Your task to perform on an android device: turn notification dots off Image 0: 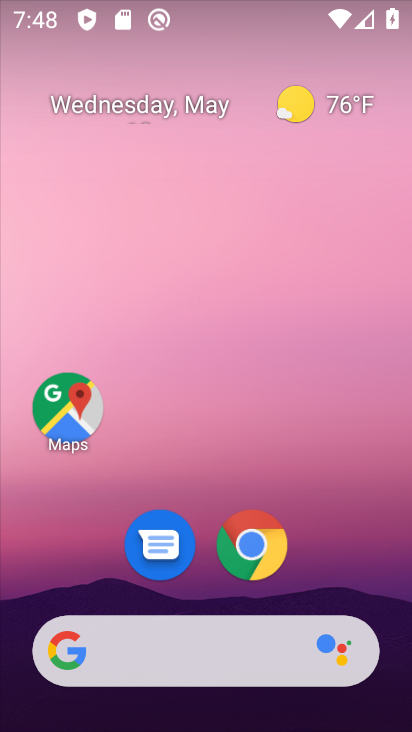
Step 0: drag from (340, 723) to (178, 199)
Your task to perform on an android device: turn notification dots off Image 1: 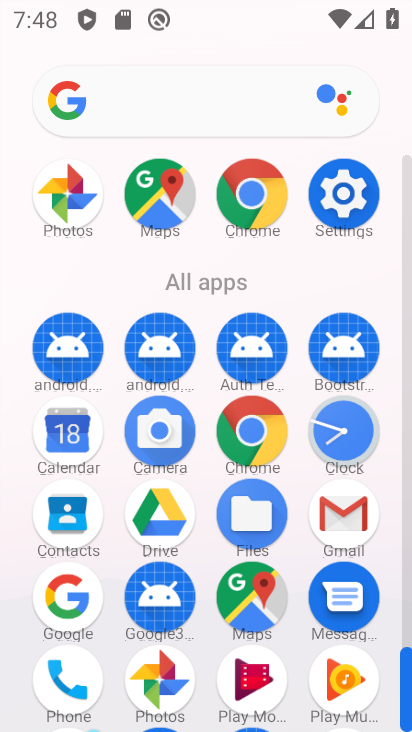
Step 1: click (342, 200)
Your task to perform on an android device: turn notification dots off Image 2: 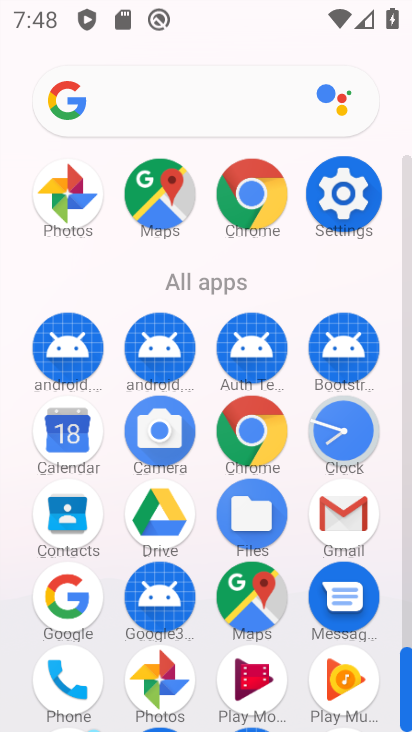
Step 2: click (342, 200)
Your task to perform on an android device: turn notification dots off Image 3: 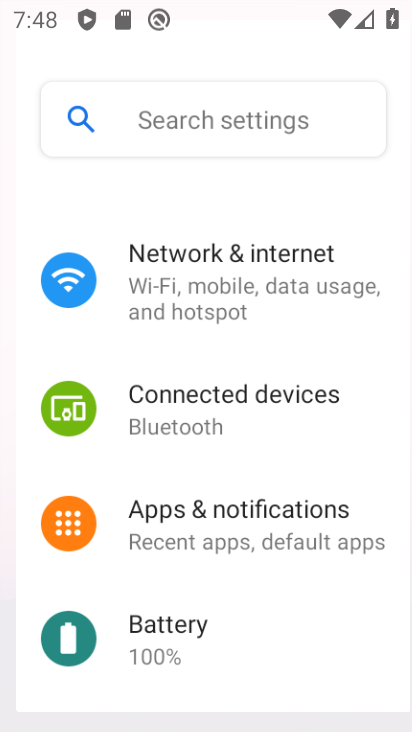
Step 3: click (342, 200)
Your task to perform on an android device: turn notification dots off Image 4: 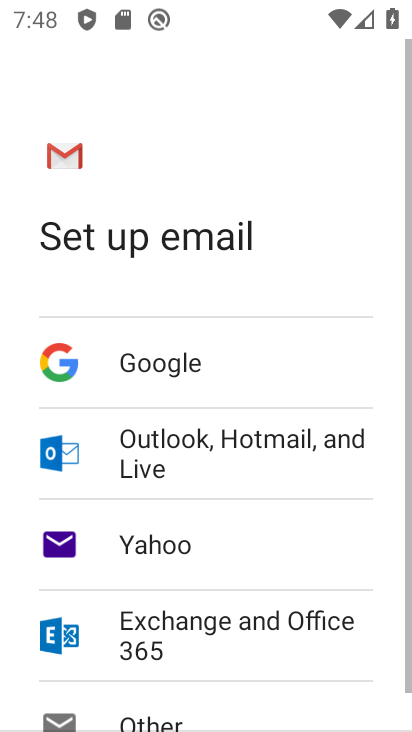
Step 4: press back button
Your task to perform on an android device: turn notification dots off Image 5: 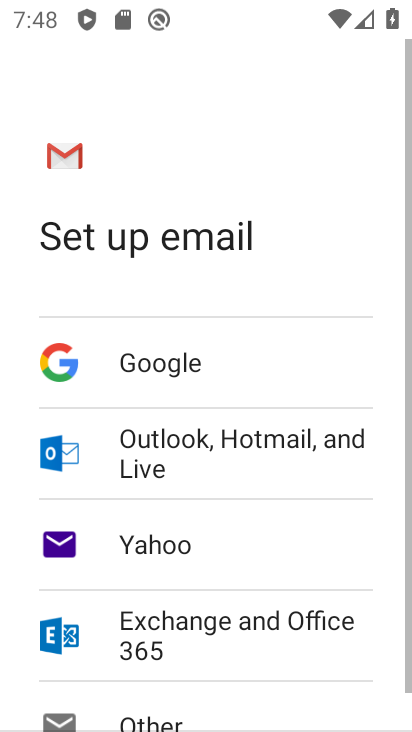
Step 5: press back button
Your task to perform on an android device: turn notification dots off Image 6: 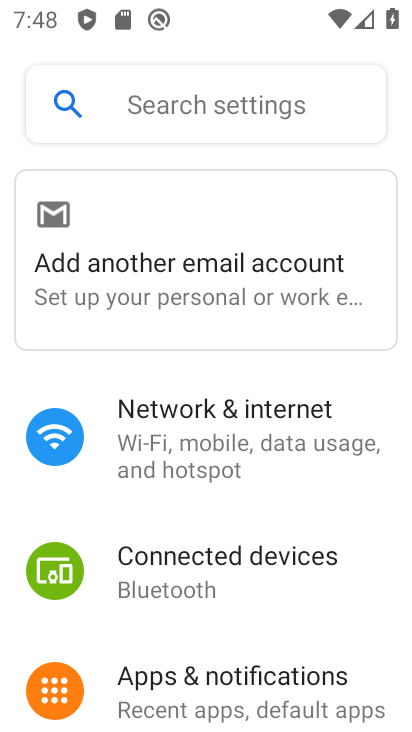
Step 6: click (240, 692)
Your task to perform on an android device: turn notification dots off Image 7: 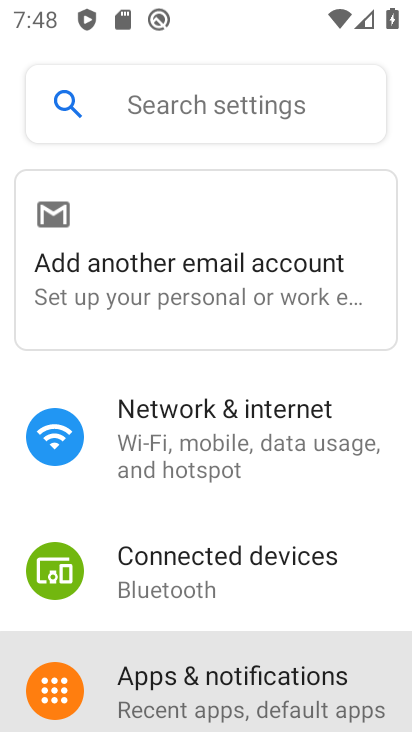
Step 7: click (241, 693)
Your task to perform on an android device: turn notification dots off Image 8: 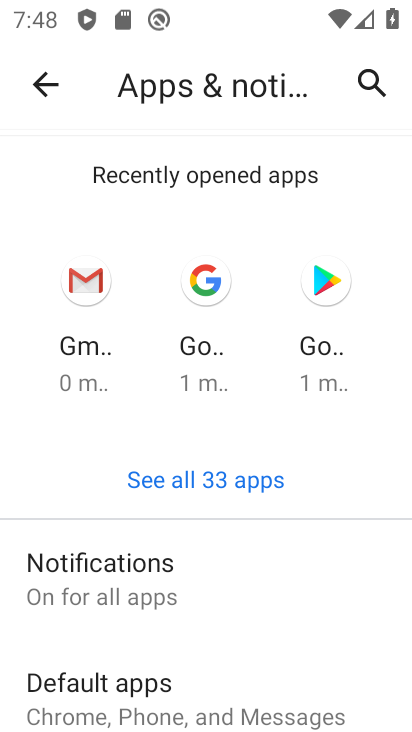
Step 8: drag from (231, 524) to (223, 351)
Your task to perform on an android device: turn notification dots off Image 9: 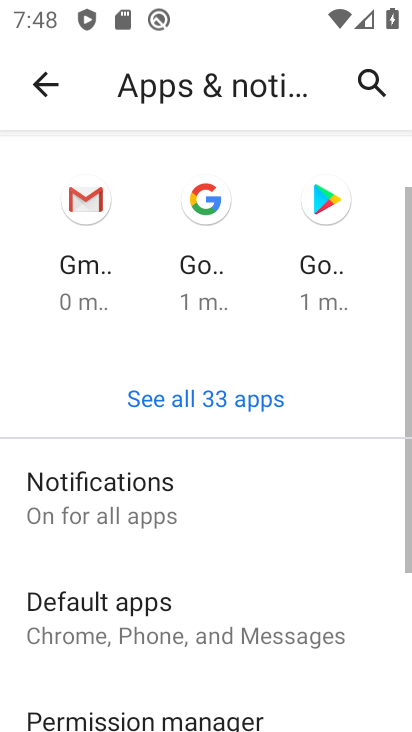
Step 9: drag from (220, 554) to (205, 91)
Your task to perform on an android device: turn notification dots off Image 10: 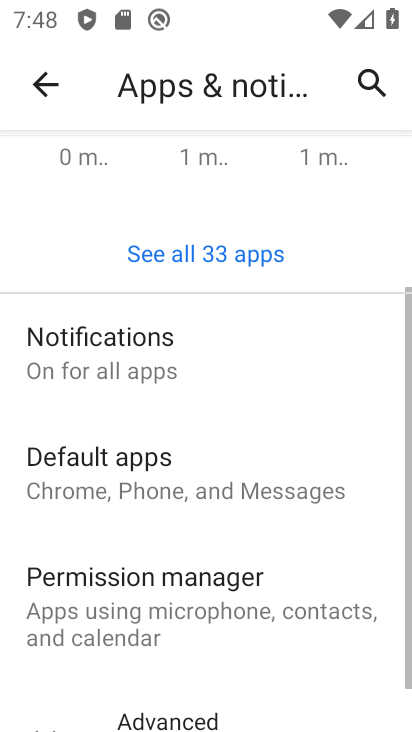
Step 10: drag from (147, 596) to (136, 216)
Your task to perform on an android device: turn notification dots off Image 11: 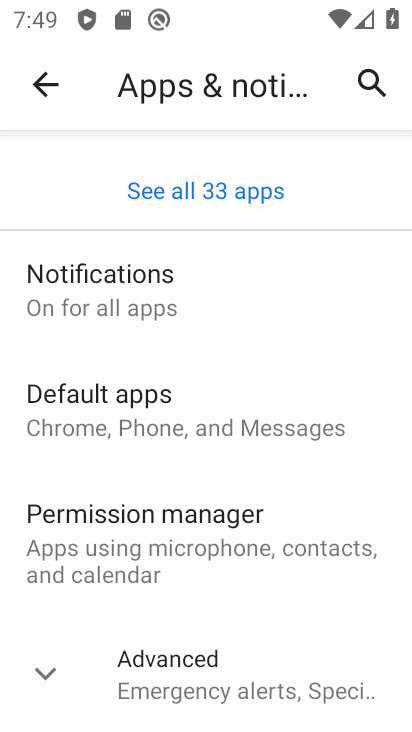
Step 11: click (108, 273)
Your task to perform on an android device: turn notification dots off Image 12: 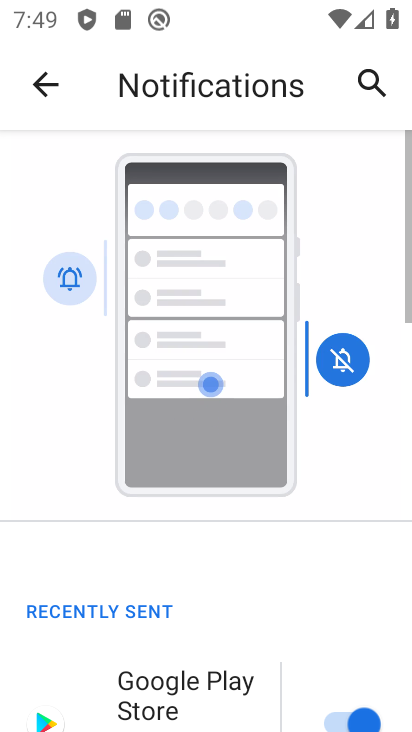
Step 12: click (95, 303)
Your task to perform on an android device: turn notification dots off Image 13: 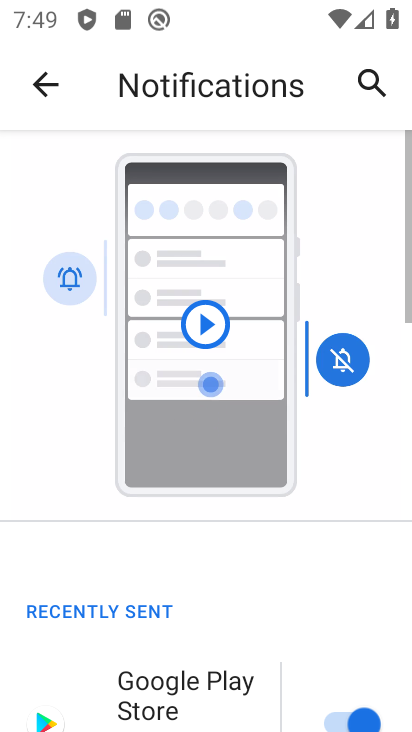
Step 13: drag from (180, 660) to (111, 143)
Your task to perform on an android device: turn notification dots off Image 14: 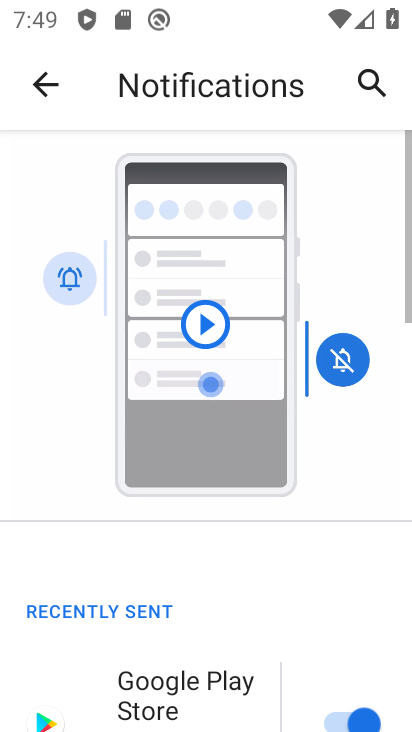
Step 14: drag from (174, 558) to (205, 167)
Your task to perform on an android device: turn notification dots off Image 15: 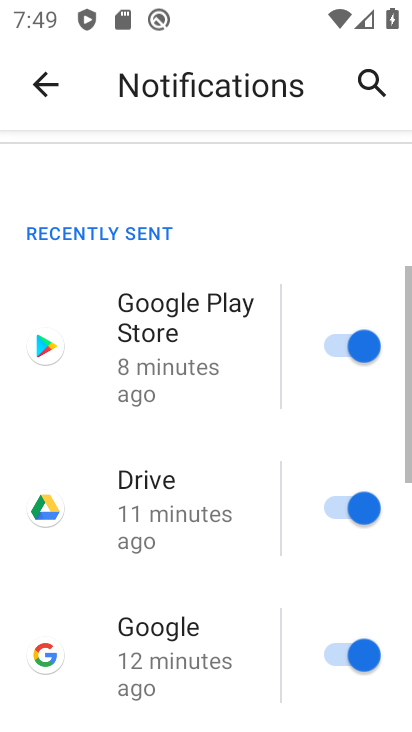
Step 15: drag from (246, 589) to (269, 184)
Your task to perform on an android device: turn notification dots off Image 16: 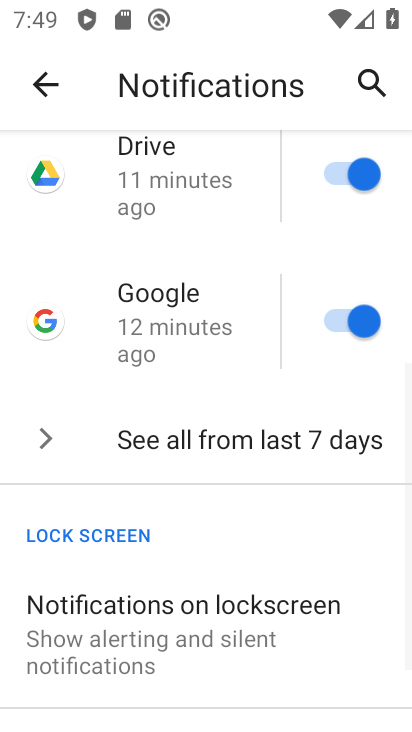
Step 16: drag from (184, 499) to (201, 265)
Your task to perform on an android device: turn notification dots off Image 17: 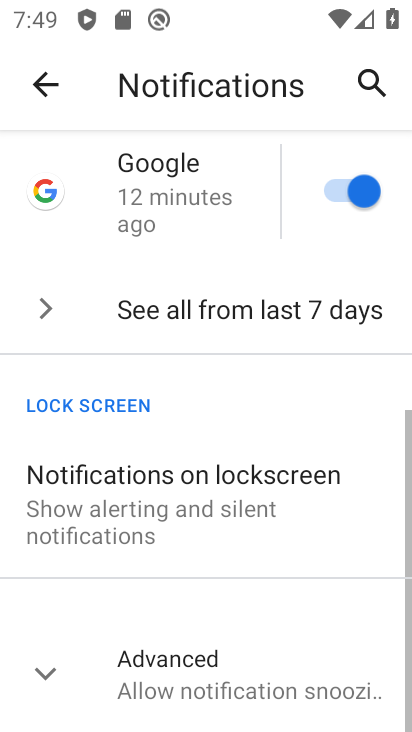
Step 17: drag from (217, 556) to (216, 242)
Your task to perform on an android device: turn notification dots off Image 18: 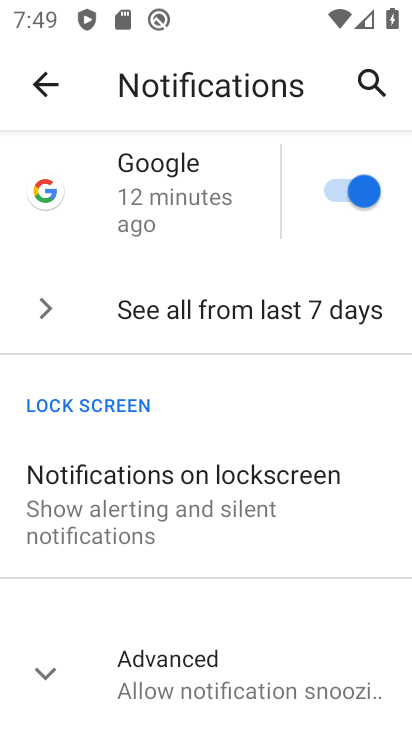
Step 18: click (170, 657)
Your task to perform on an android device: turn notification dots off Image 19: 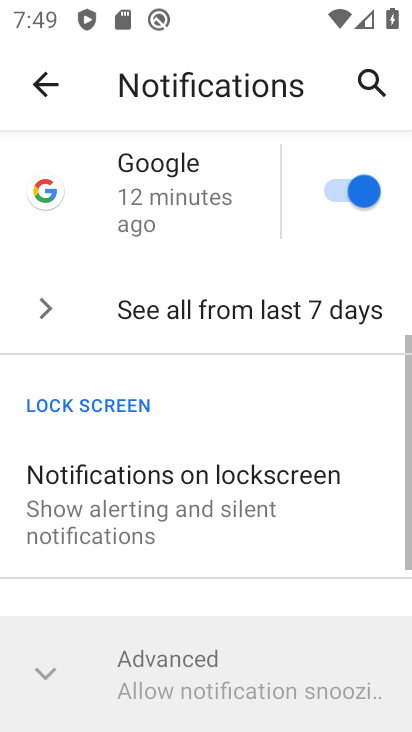
Step 19: click (168, 658)
Your task to perform on an android device: turn notification dots off Image 20: 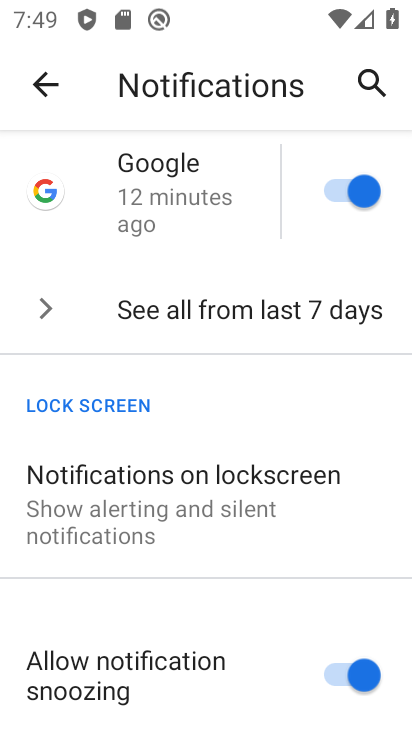
Step 20: drag from (143, 614) to (145, 37)
Your task to perform on an android device: turn notification dots off Image 21: 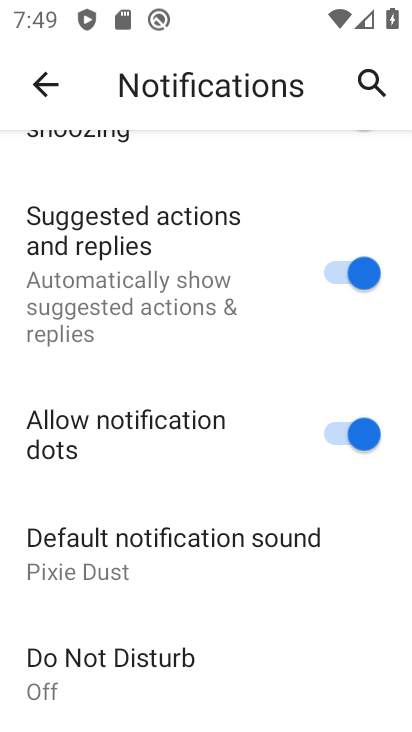
Step 21: drag from (101, 414) to (72, 9)
Your task to perform on an android device: turn notification dots off Image 22: 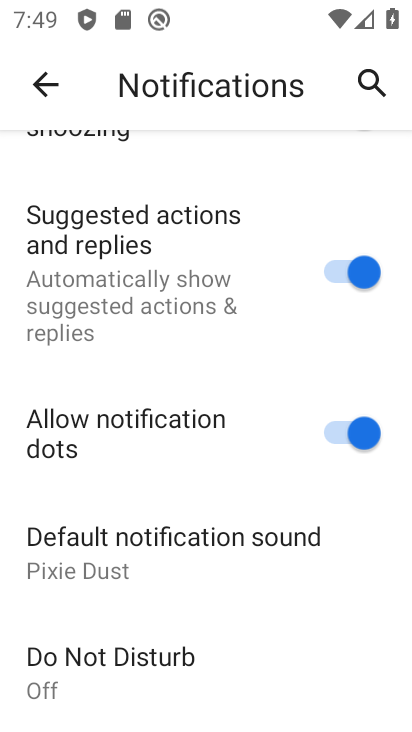
Step 22: drag from (124, 553) to (105, 56)
Your task to perform on an android device: turn notification dots off Image 23: 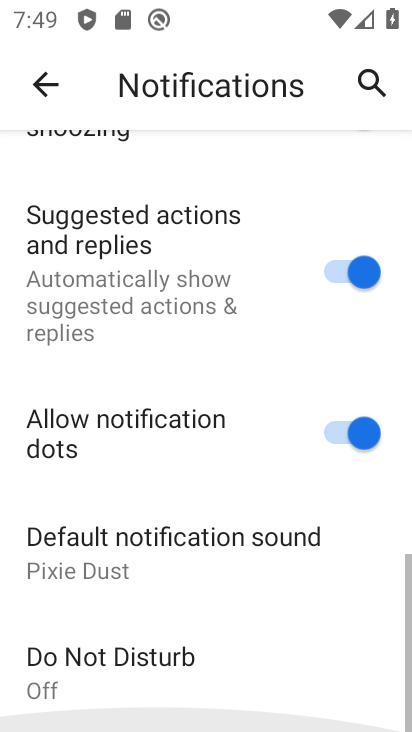
Step 23: click (130, 38)
Your task to perform on an android device: turn notification dots off Image 24: 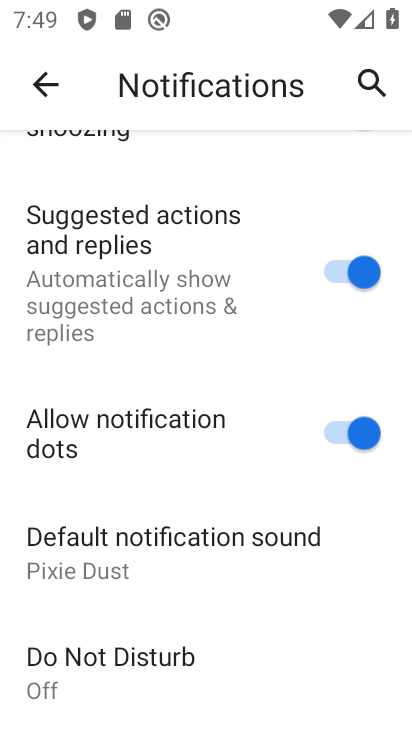
Step 24: click (367, 440)
Your task to perform on an android device: turn notification dots off Image 25: 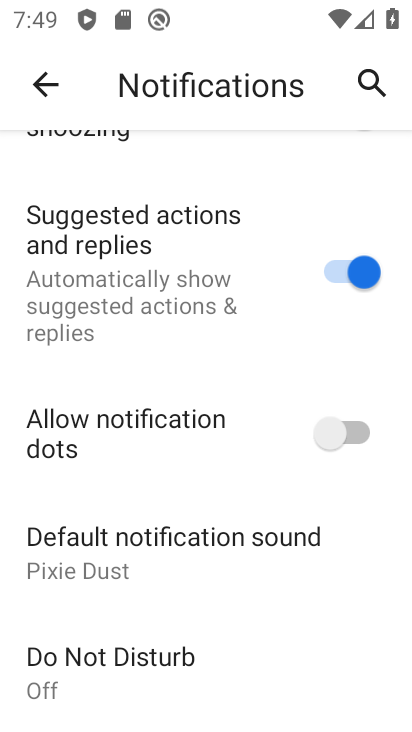
Step 25: task complete